Your task to perform on an android device: Show me popular games on the Play Store Image 0: 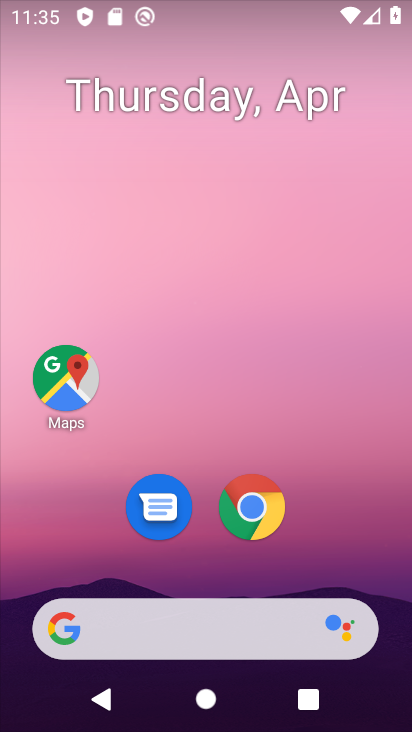
Step 0: drag from (230, 669) to (227, 130)
Your task to perform on an android device: Show me popular games on the Play Store Image 1: 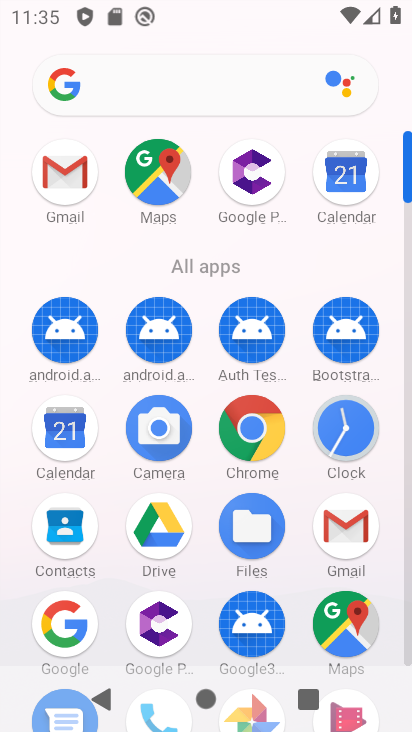
Step 1: drag from (203, 648) to (210, 195)
Your task to perform on an android device: Show me popular games on the Play Store Image 2: 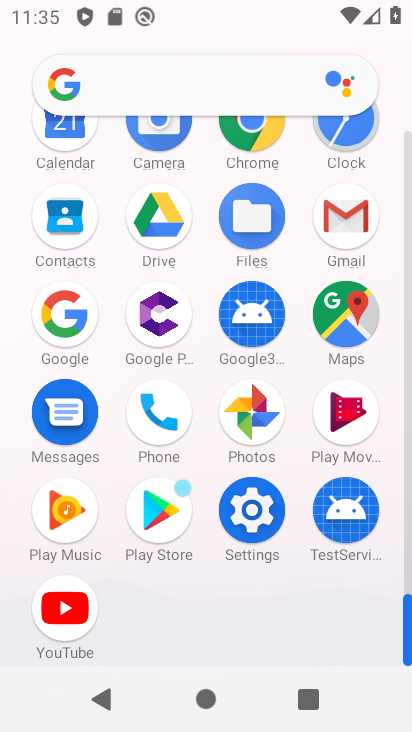
Step 2: click (160, 520)
Your task to perform on an android device: Show me popular games on the Play Store Image 3: 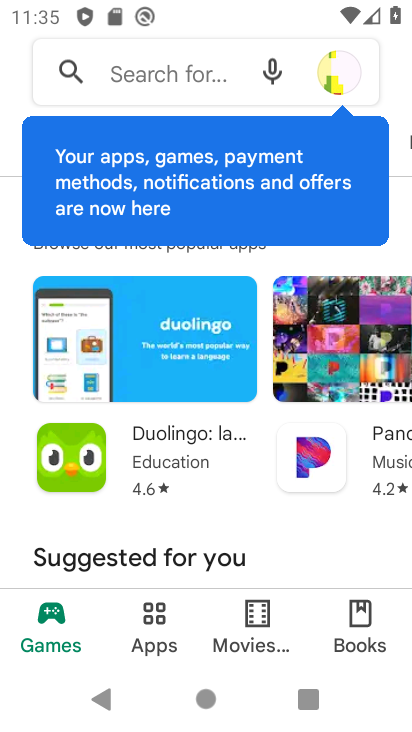
Step 3: drag from (236, 563) to (252, 183)
Your task to perform on an android device: Show me popular games on the Play Store Image 4: 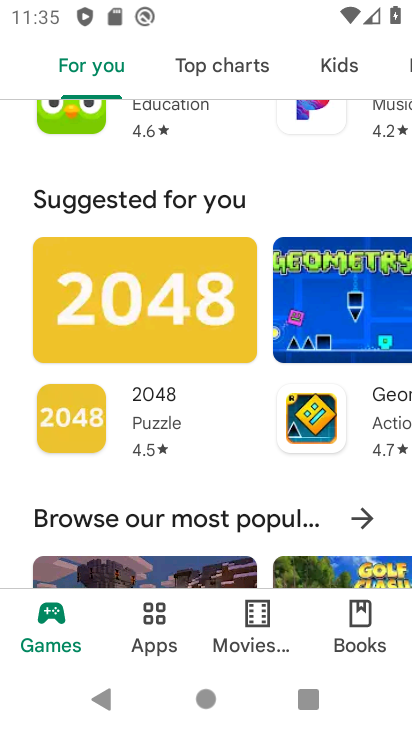
Step 4: drag from (247, 492) to (248, 181)
Your task to perform on an android device: Show me popular games on the Play Store Image 5: 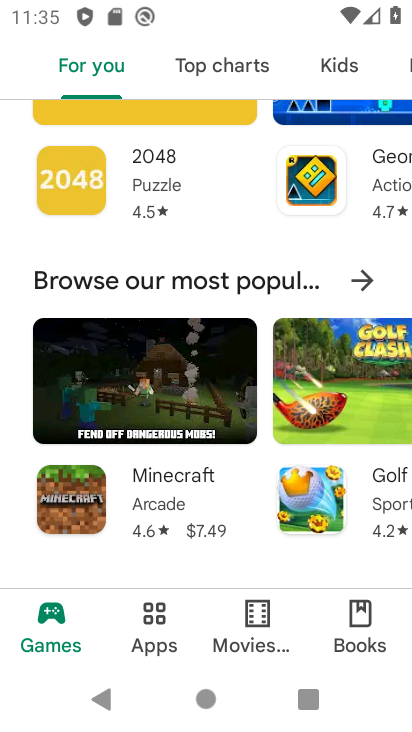
Step 5: click (362, 273)
Your task to perform on an android device: Show me popular games on the Play Store Image 6: 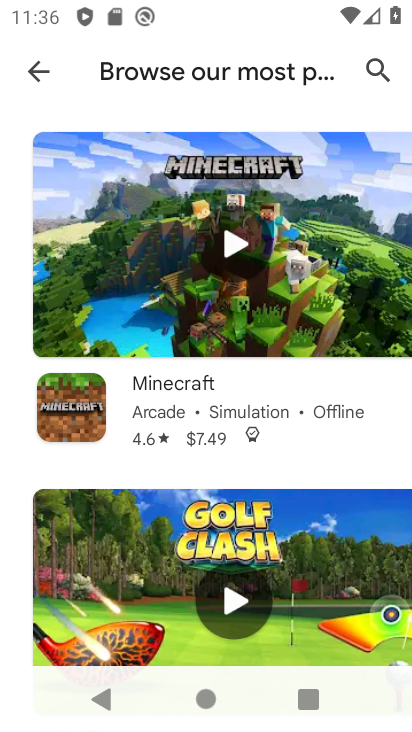
Step 6: task complete